Your task to perform on an android device: Open calendar and show me the second week of next month Image 0: 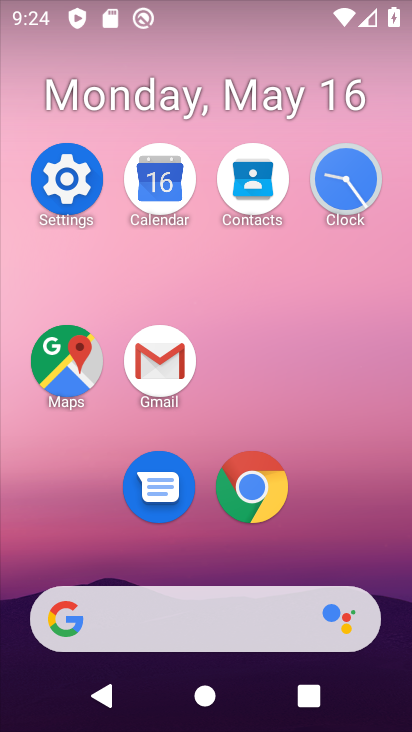
Step 0: drag from (309, 448) to (307, 77)
Your task to perform on an android device: Open calendar and show me the second week of next month Image 1: 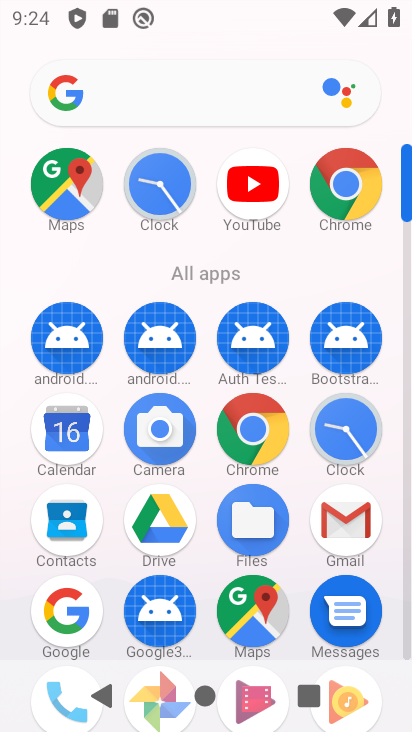
Step 1: drag from (51, 441) to (65, 281)
Your task to perform on an android device: Open calendar and show me the second week of next month Image 2: 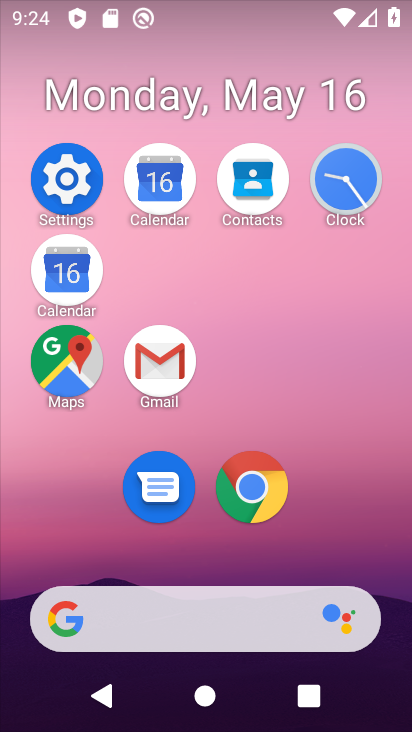
Step 2: click (73, 269)
Your task to perform on an android device: Open calendar and show me the second week of next month Image 3: 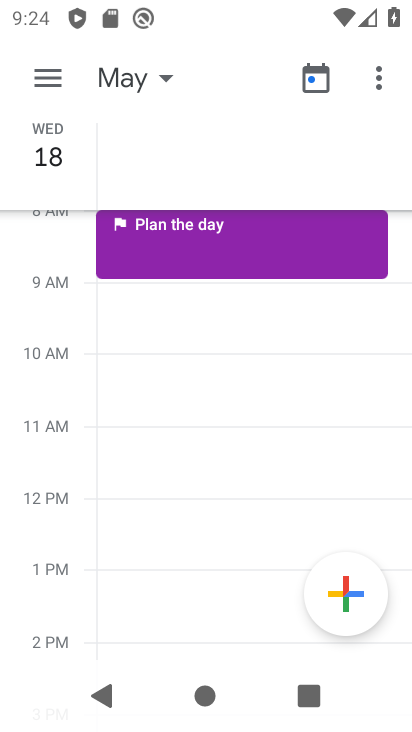
Step 3: click (146, 71)
Your task to perform on an android device: Open calendar and show me the second week of next month Image 4: 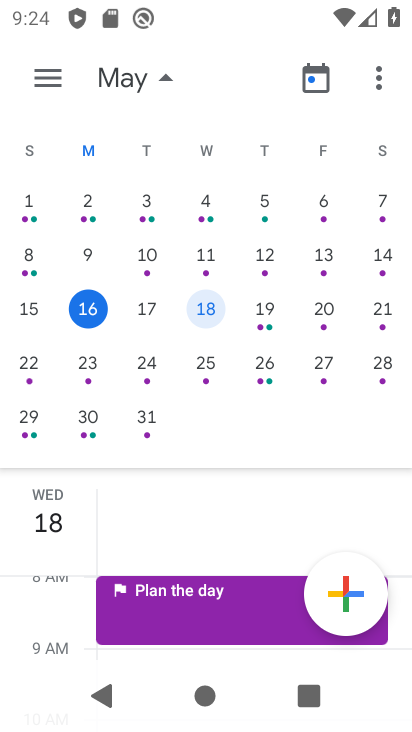
Step 4: drag from (399, 291) to (0, 221)
Your task to perform on an android device: Open calendar and show me the second week of next month Image 5: 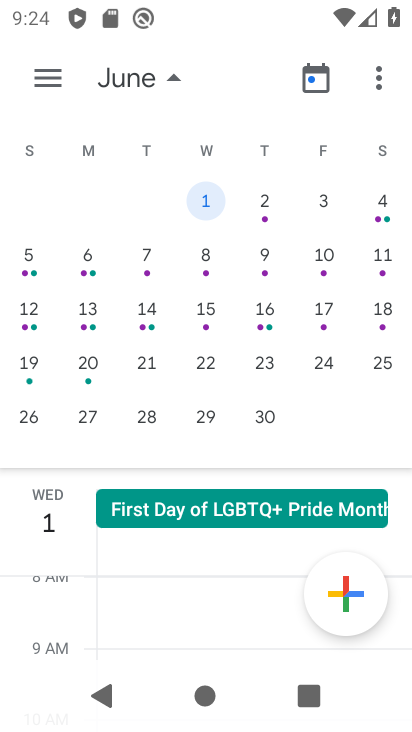
Step 5: click (43, 79)
Your task to perform on an android device: Open calendar and show me the second week of next month Image 6: 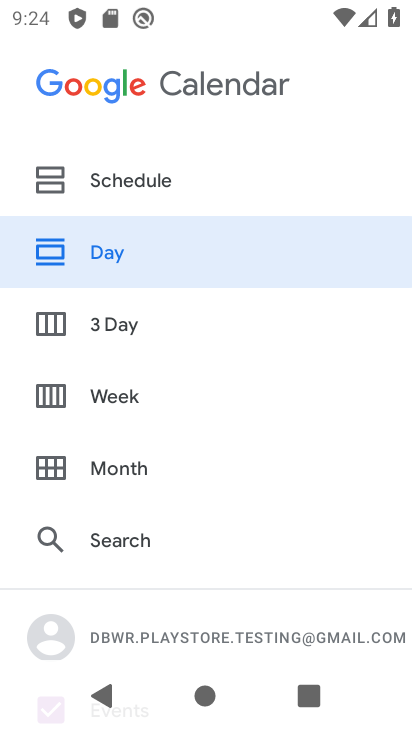
Step 6: click (107, 392)
Your task to perform on an android device: Open calendar and show me the second week of next month Image 7: 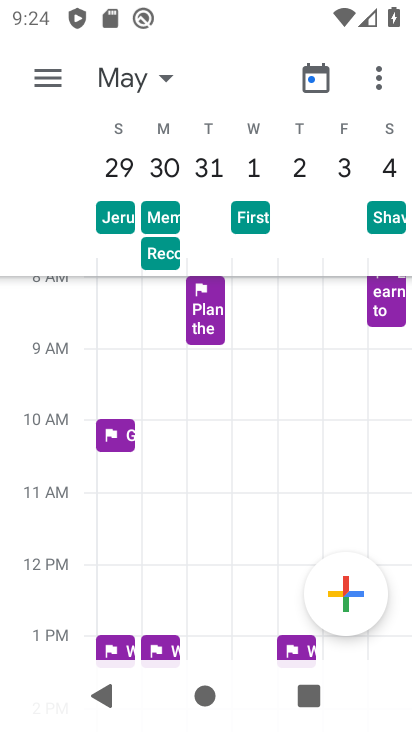
Step 7: task complete